Your task to perform on an android device: change the upload size in google photos Image 0: 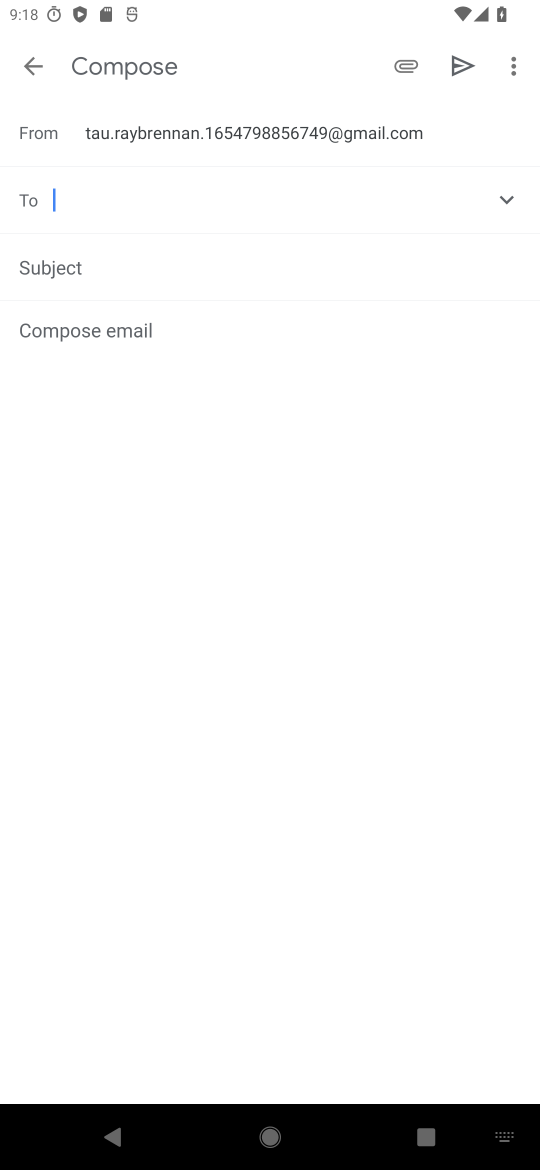
Step 0: press home button
Your task to perform on an android device: change the upload size in google photos Image 1: 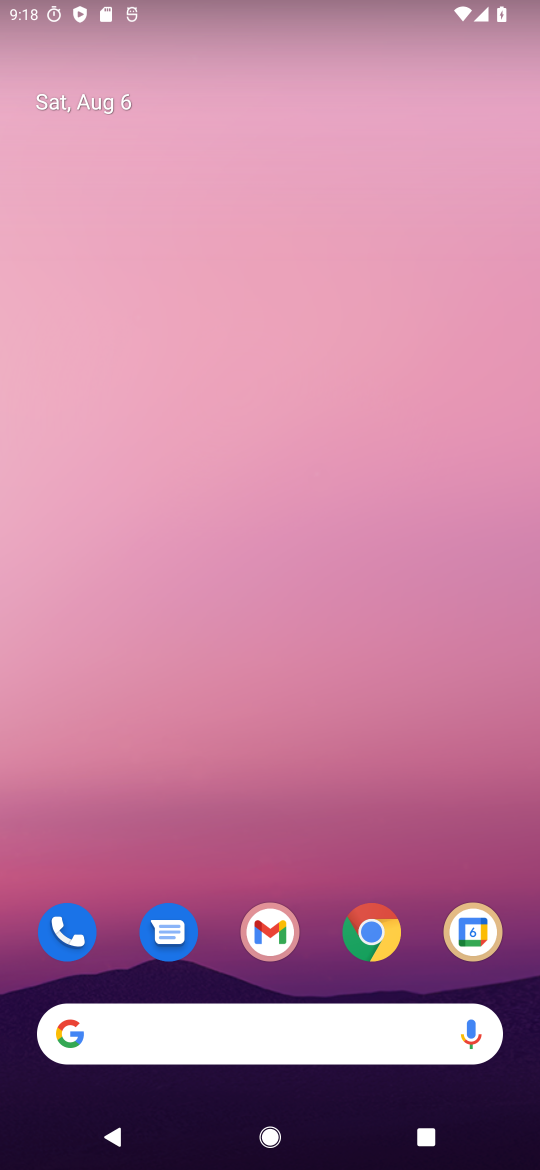
Step 1: drag from (330, 995) to (421, 254)
Your task to perform on an android device: change the upload size in google photos Image 2: 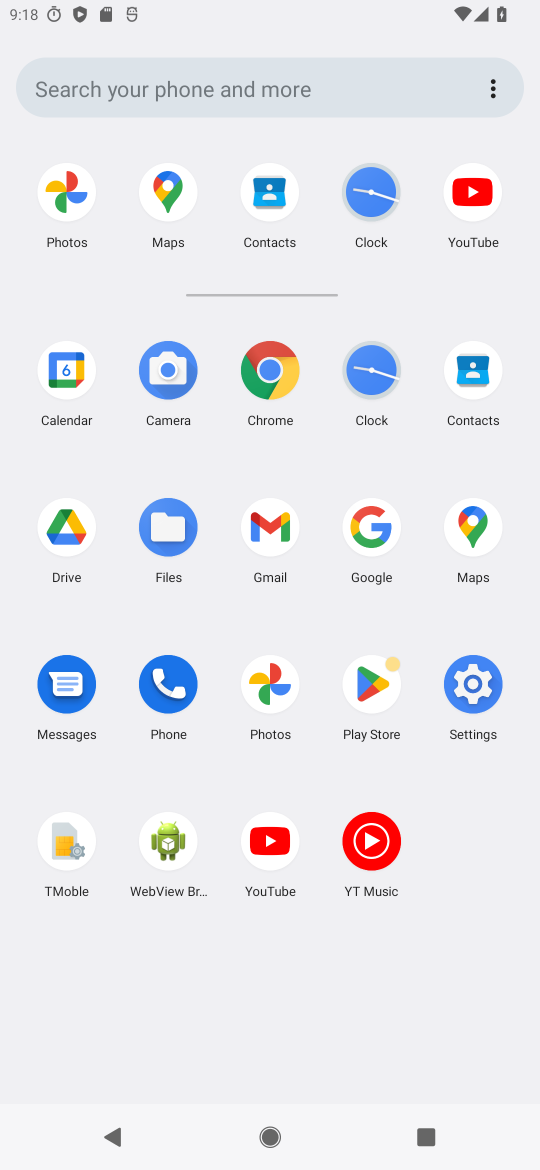
Step 2: click (272, 669)
Your task to perform on an android device: change the upload size in google photos Image 3: 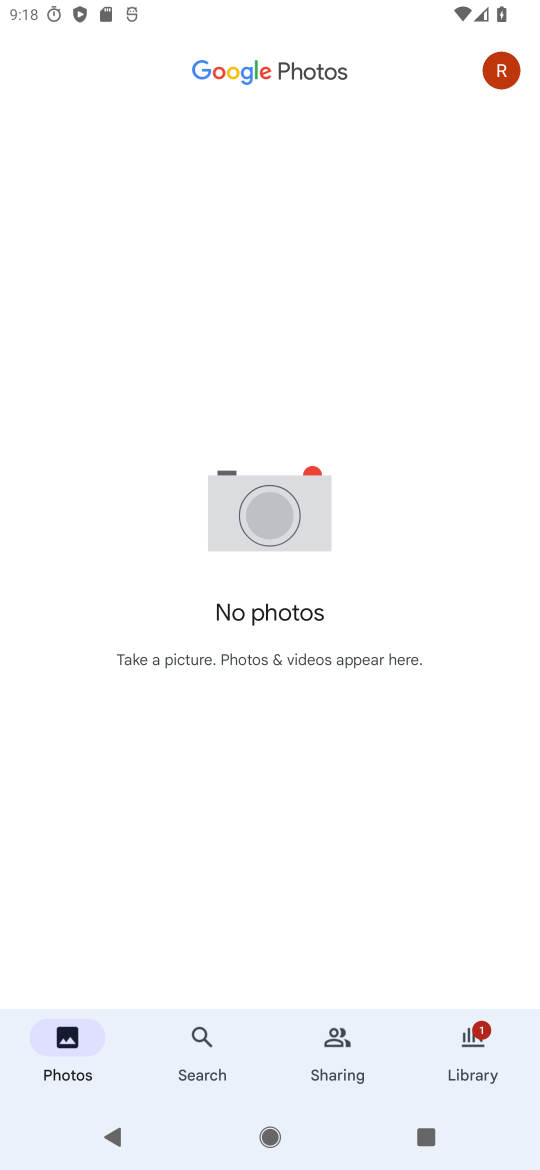
Step 3: click (506, 70)
Your task to perform on an android device: change the upload size in google photos Image 4: 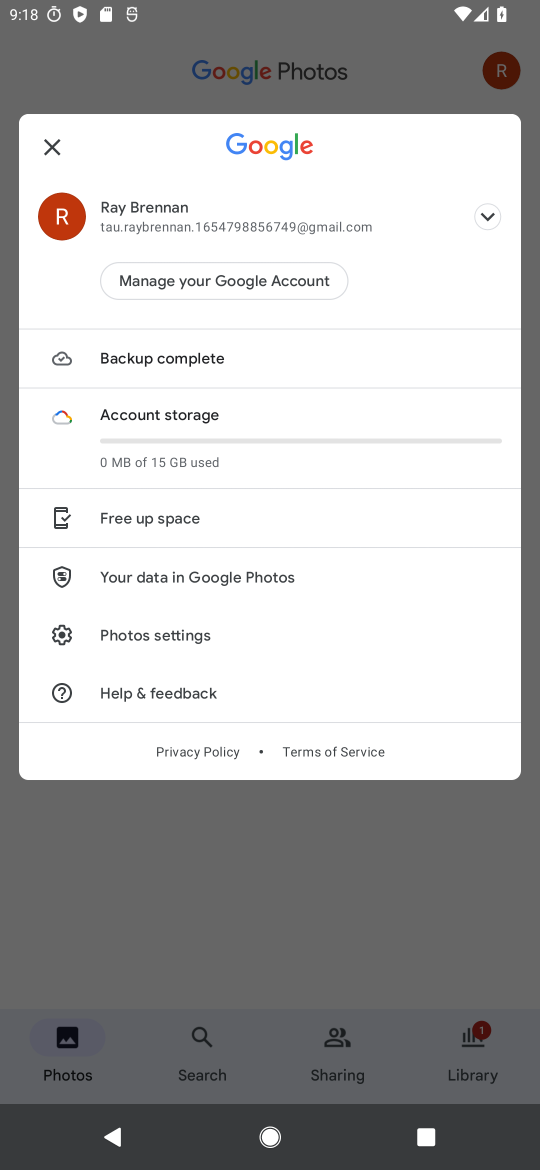
Step 4: click (194, 634)
Your task to perform on an android device: change the upload size in google photos Image 5: 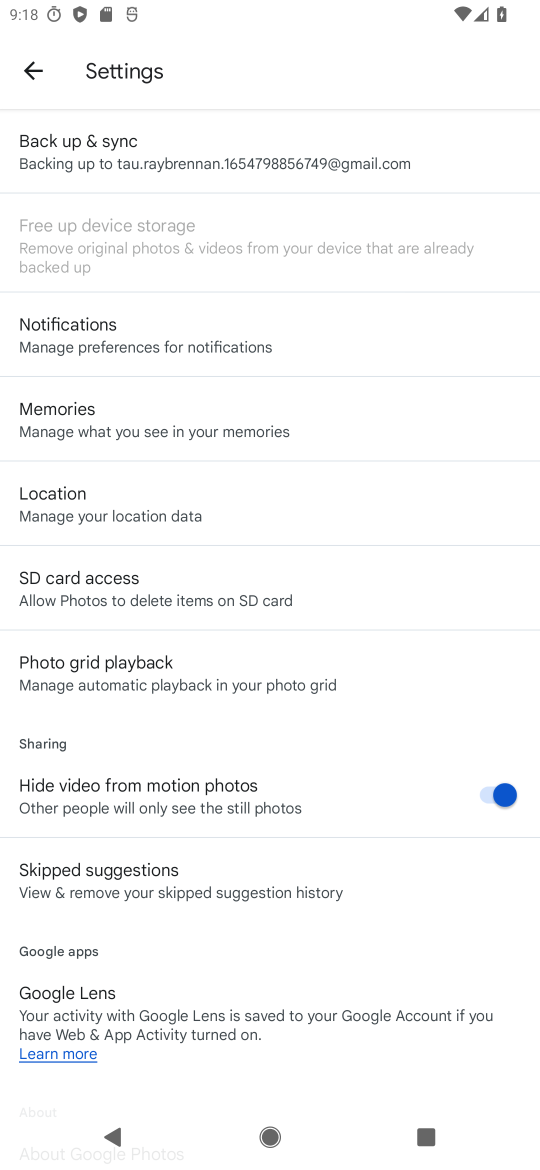
Step 5: click (221, 135)
Your task to perform on an android device: change the upload size in google photos Image 6: 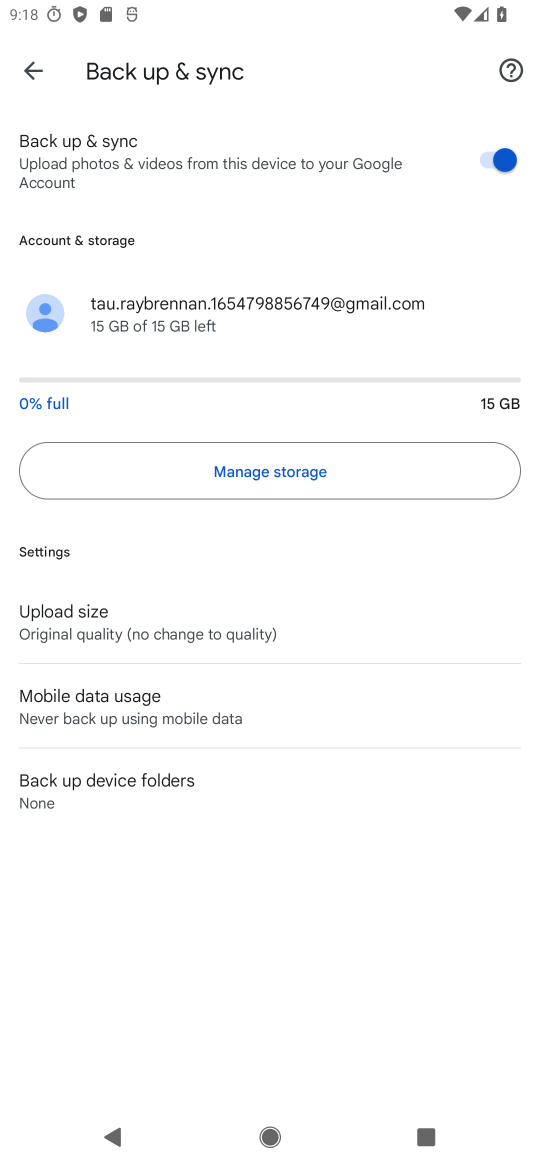
Step 6: click (211, 603)
Your task to perform on an android device: change the upload size in google photos Image 7: 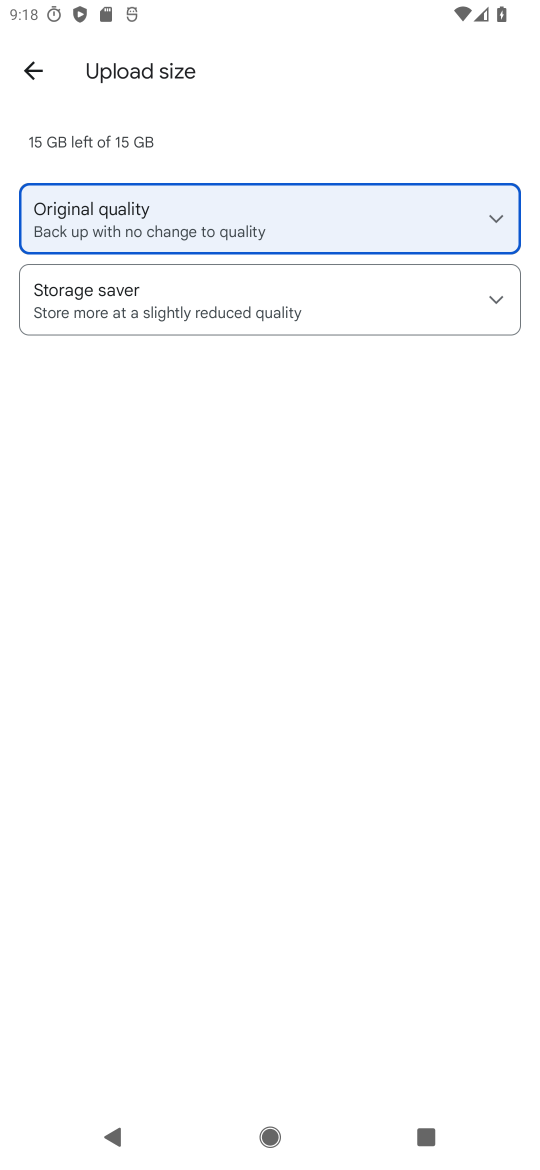
Step 7: click (483, 299)
Your task to perform on an android device: change the upload size in google photos Image 8: 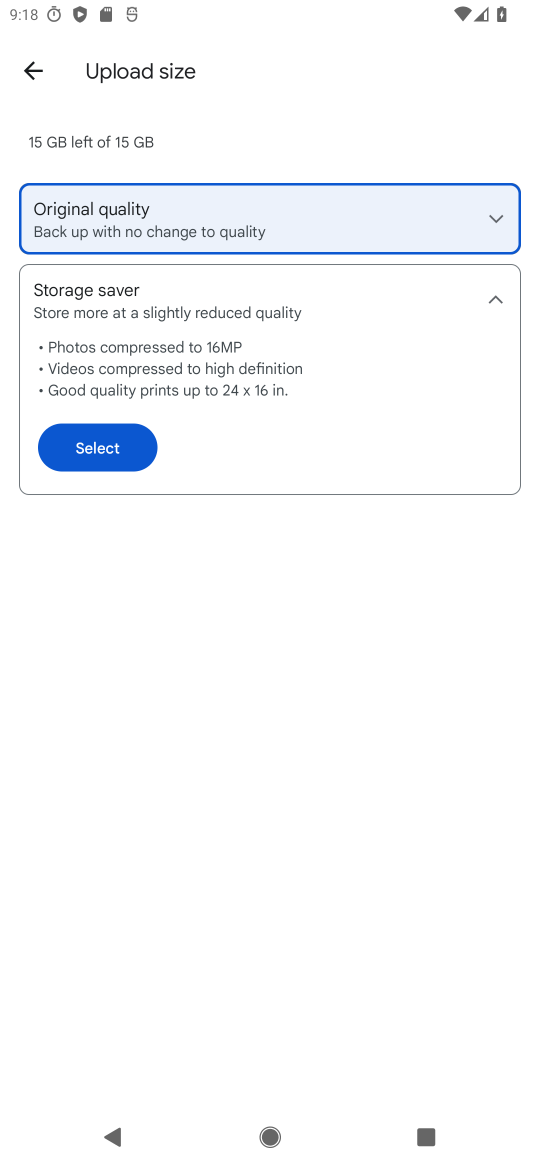
Step 8: click (85, 453)
Your task to perform on an android device: change the upload size in google photos Image 9: 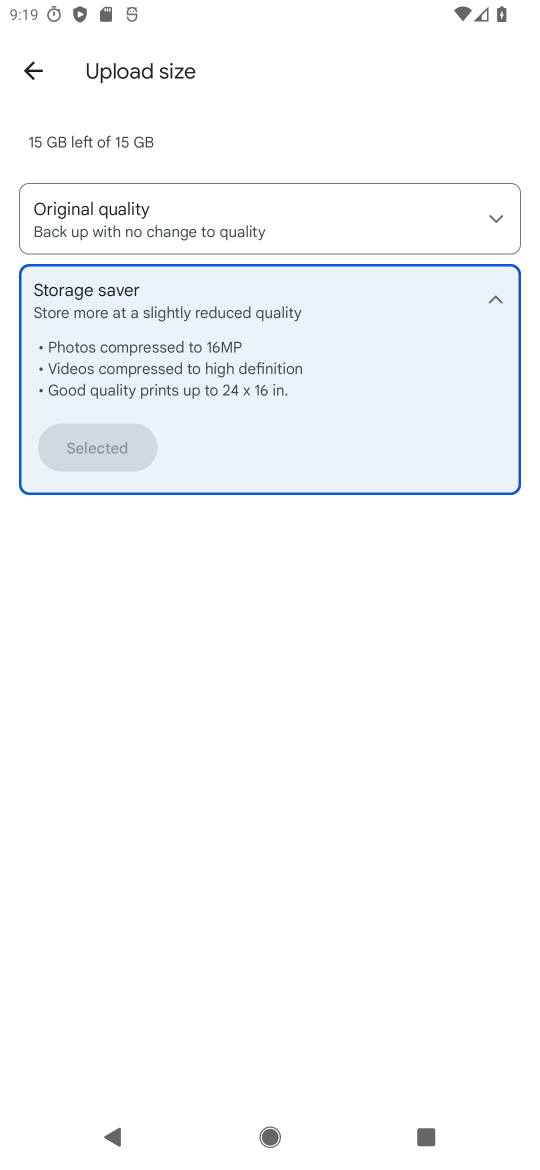
Step 9: task complete